Your task to perform on an android device: open app "Cash App" Image 0: 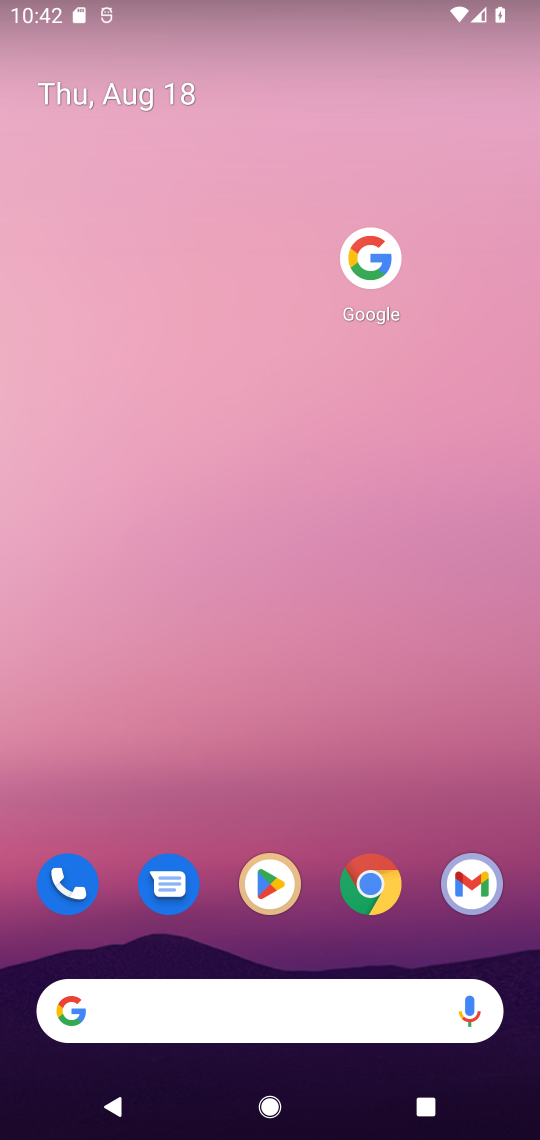
Step 0: click (253, 871)
Your task to perform on an android device: open app "Cash App" Image 1: 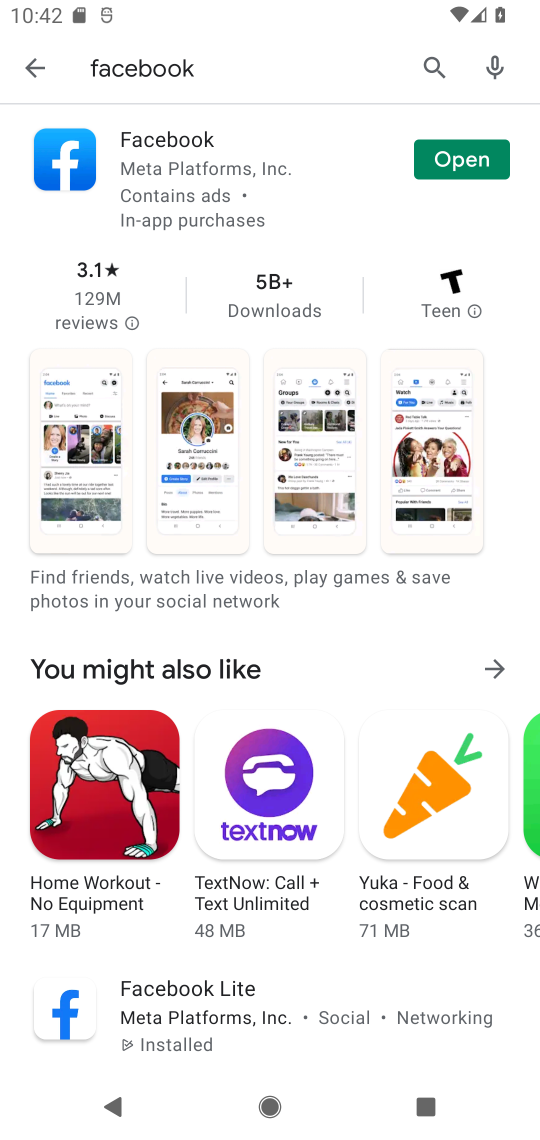
Step 1: click (436, 94)
Your task to perform on an android device: open app "Cash App" Image 2: 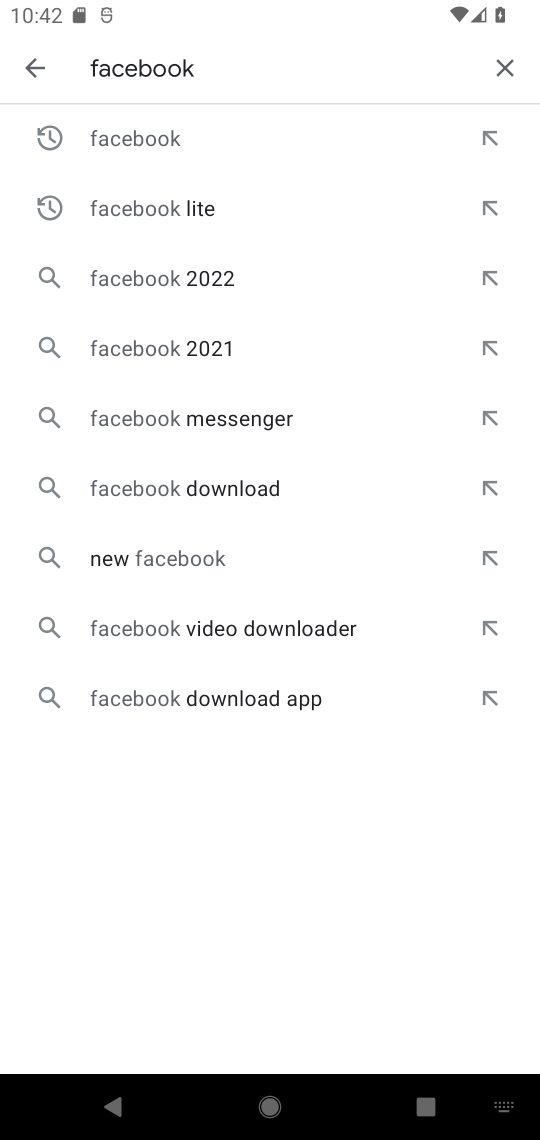
Step 2: click (491, 64)
Your task to perform on an android device: open app "Cash App" Image 3: 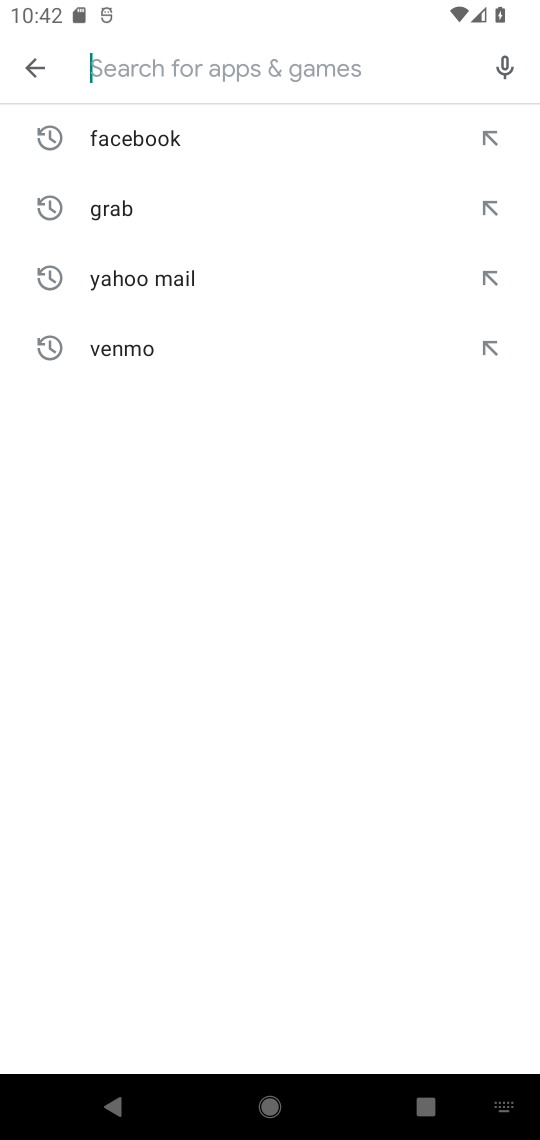
Step 3: type "cash"
Your task to perform on an android device: open app "Cash App" Image 4: 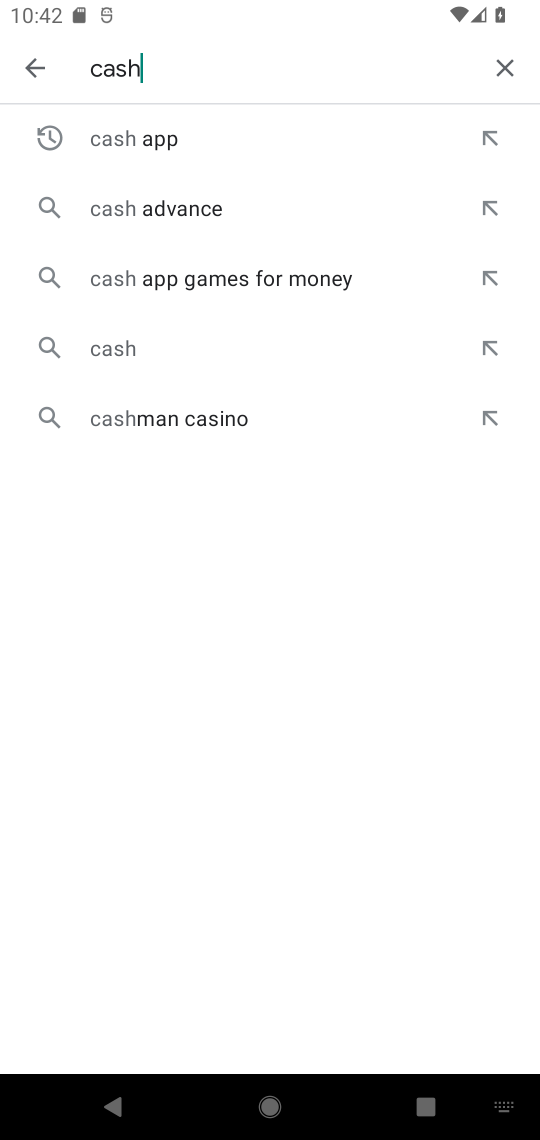
Step 4: click (240, 157)
Your task to perform on an android device: open app "Cash App" Image 5: 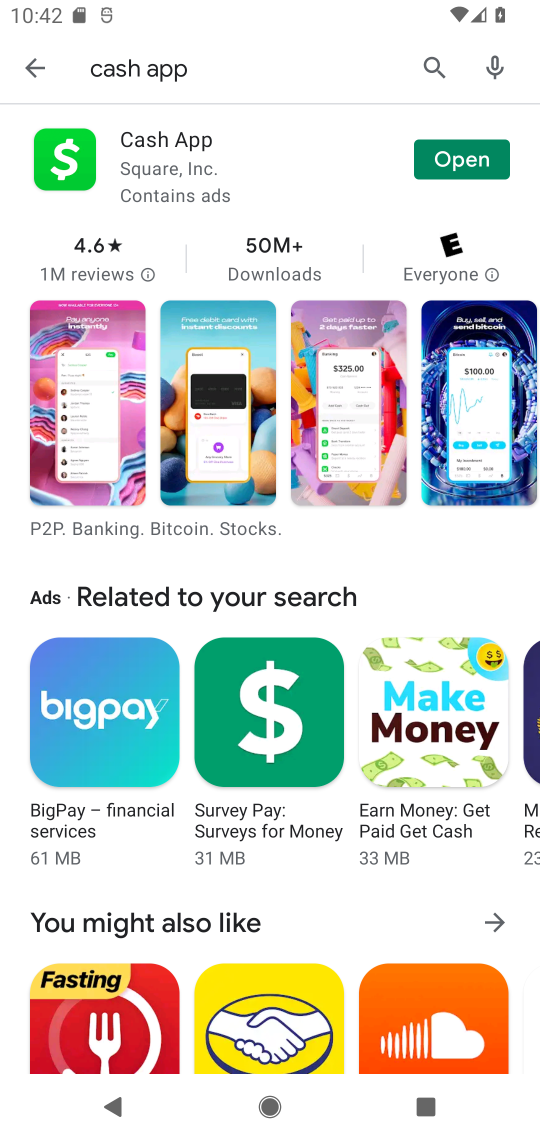
Step 5: click (431, 146)
Your task to perform on an android device: open app "Cash App" Image 6: 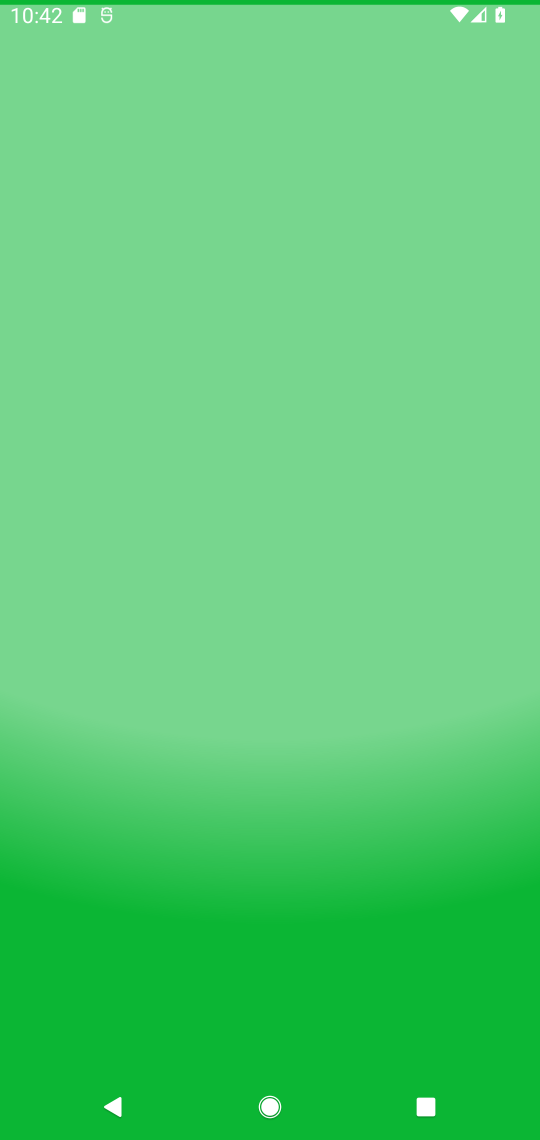
Step 6: task complete